Your task to perform on an android device: Add "razer blackwidow" to the cart on target.com Image 0: 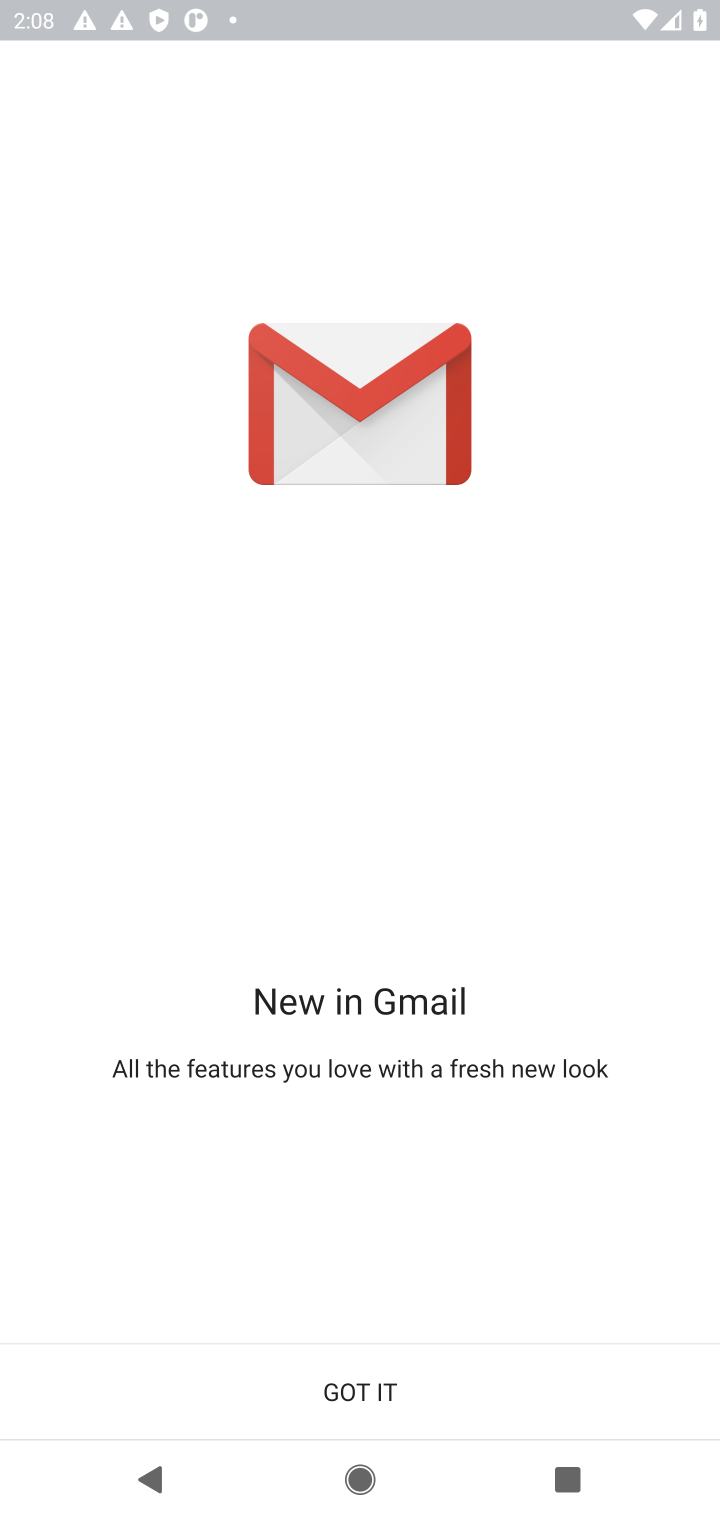
Step 0: press home button
Your task to perform on an android device: Add "razer blackwidow" to the cart on target.com Image 1: 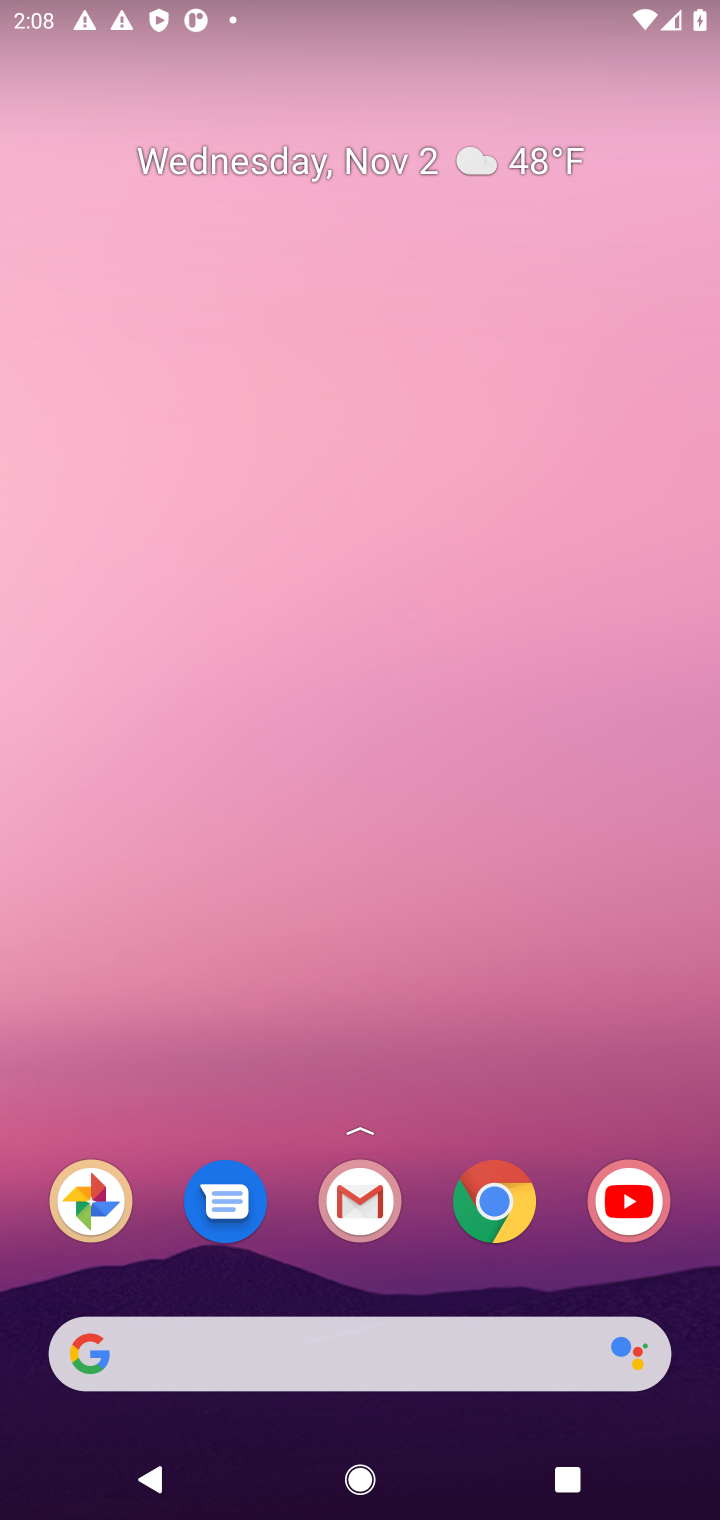
Step 1: click (485, 1197)
Your task to perform on an android device: Add "razer blackwidow" to the cart on target.com Image 2: 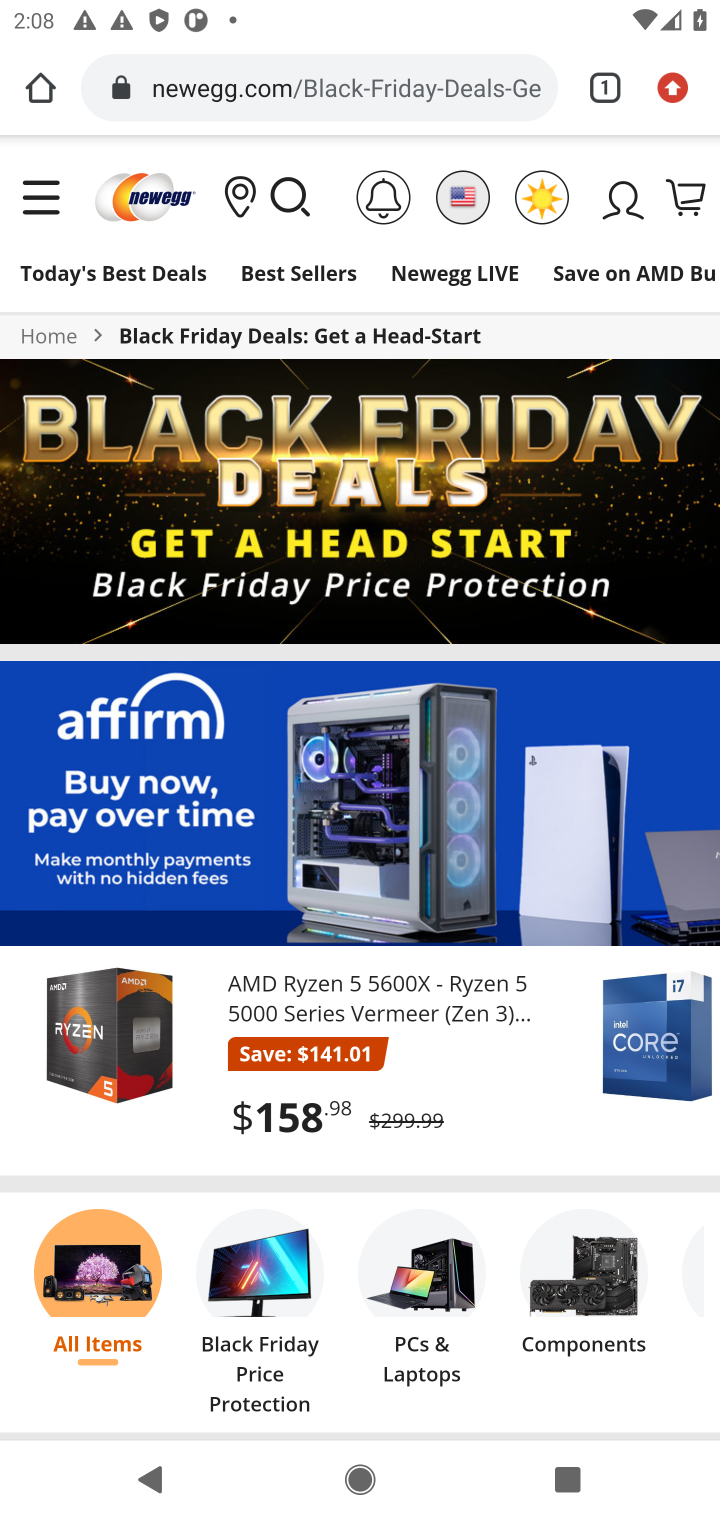
Step 2: click (478, 85)
Your task to perform on an android device: Add "razer blackwidow" to the cart on target.com Image 3: 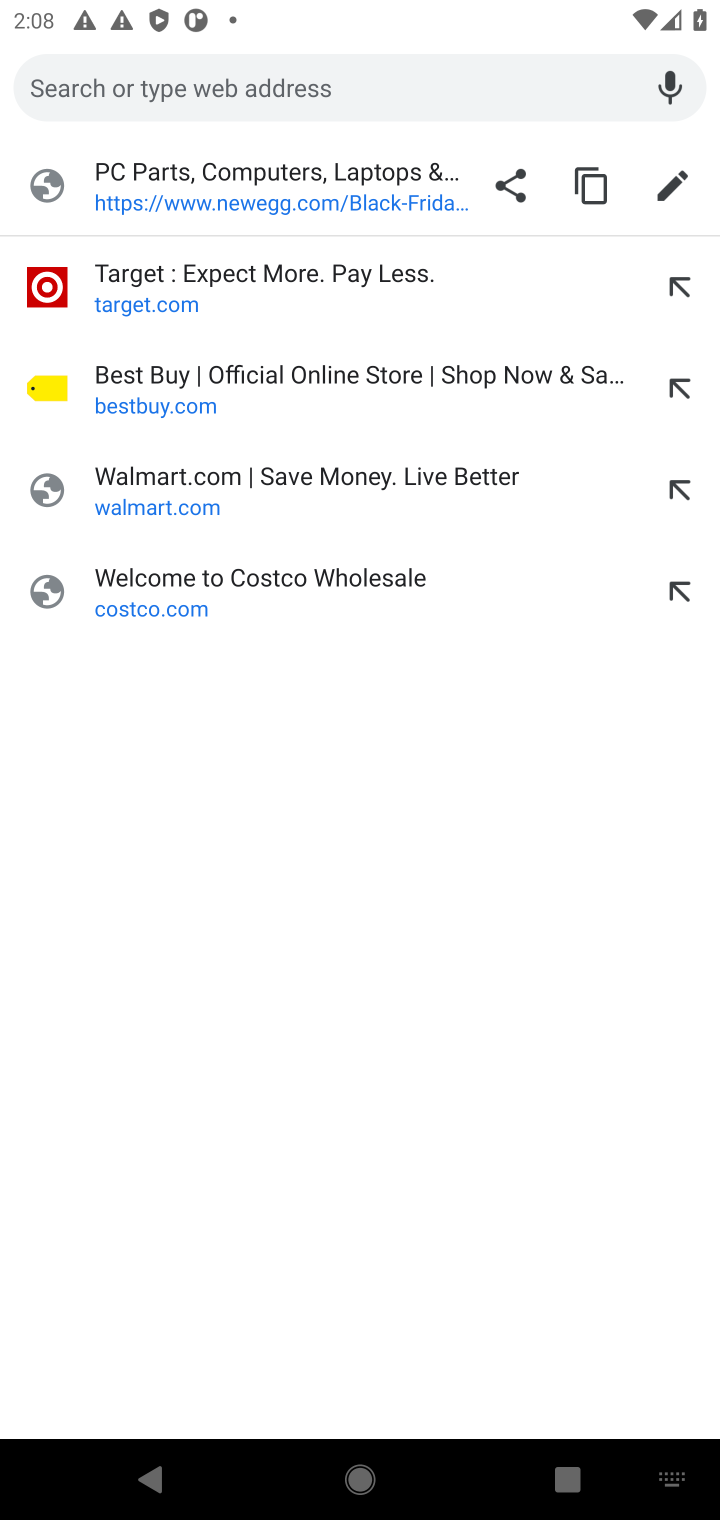
Step 3: click (380, 252)
Your task to perform on an android device: Add "razer blackwidow" to the cart on target.com Image 4: 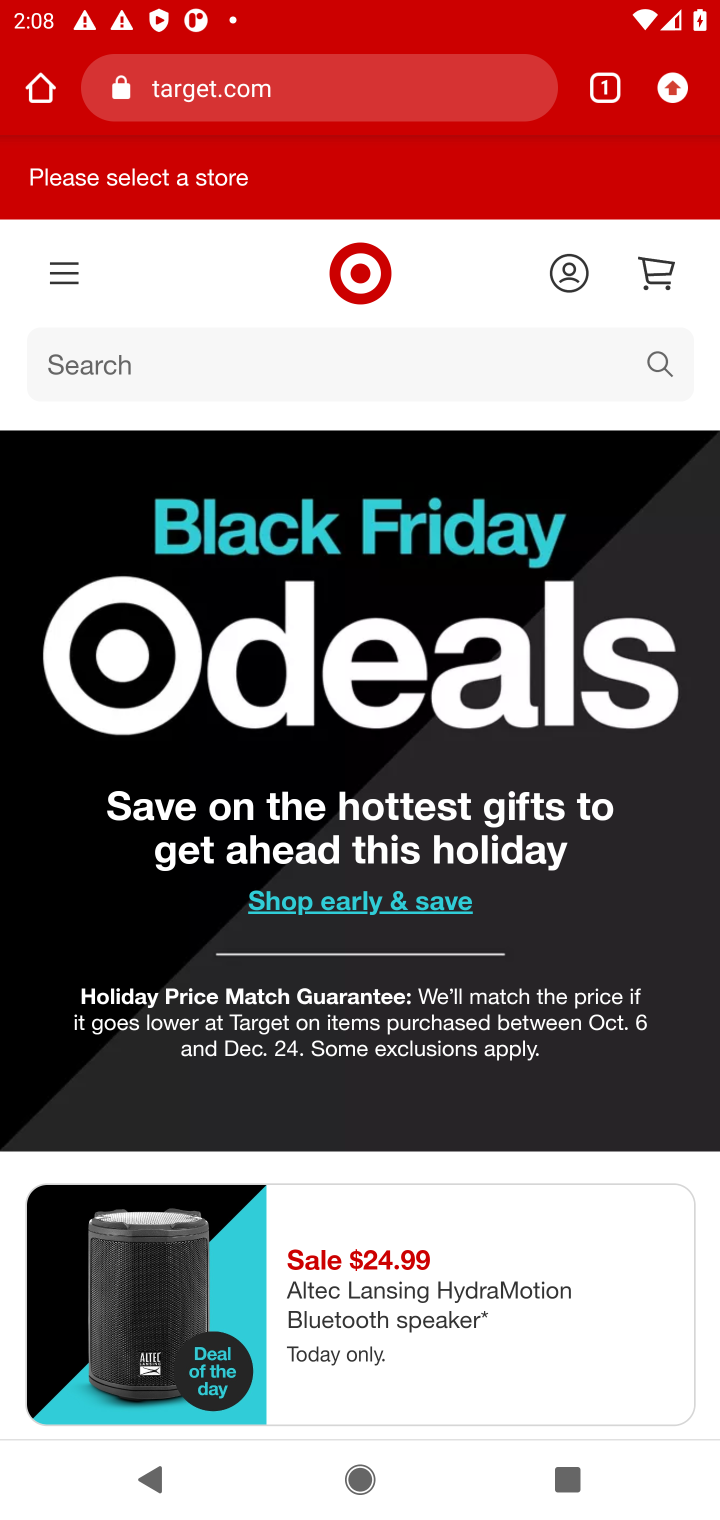
Step 4: click (647, 353)
Your task to perform on an android device: Add "razer blackwidow" to the cart on target.com Image 5: 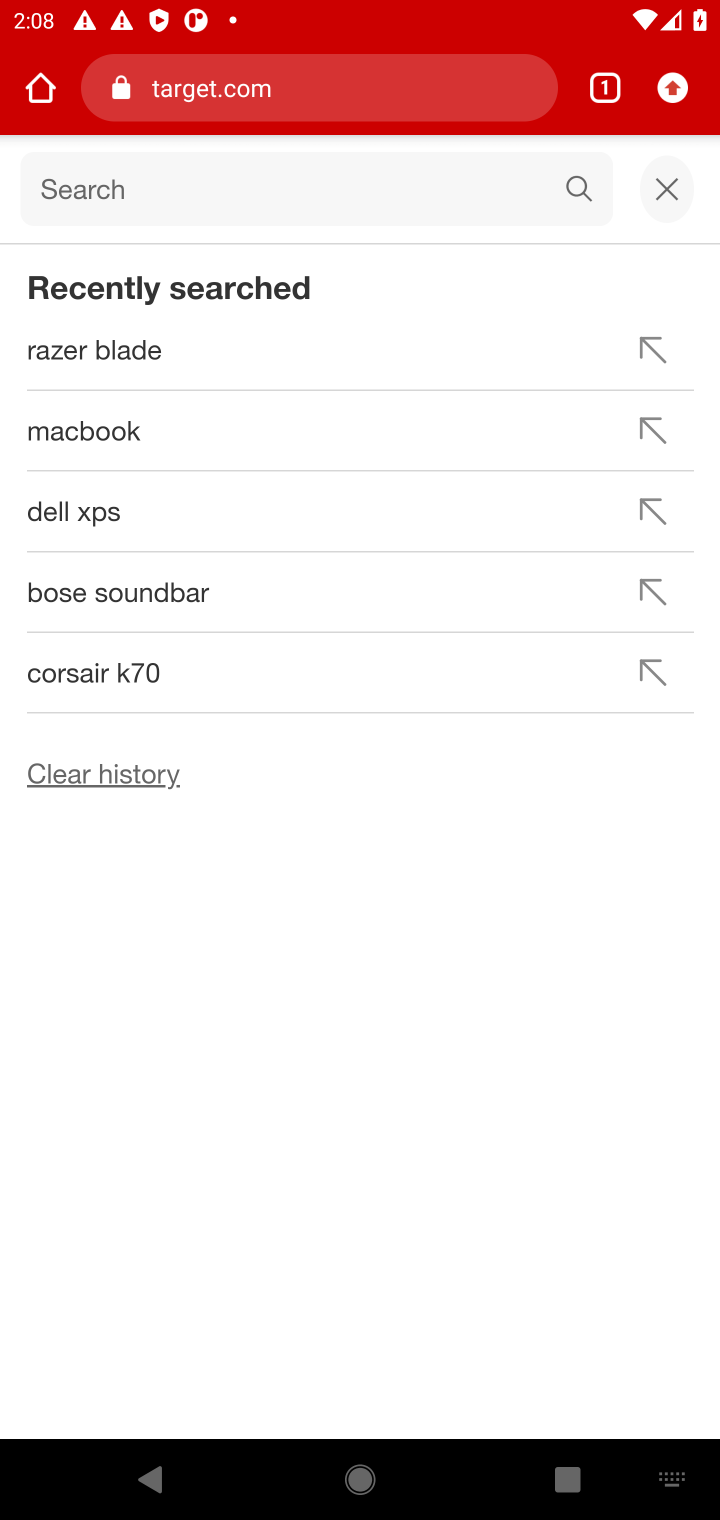
Step 5: type "razer blackwidow"
Your task to perform on an android device: Add "razer blackwidow" to the cart on target.com Image 6: 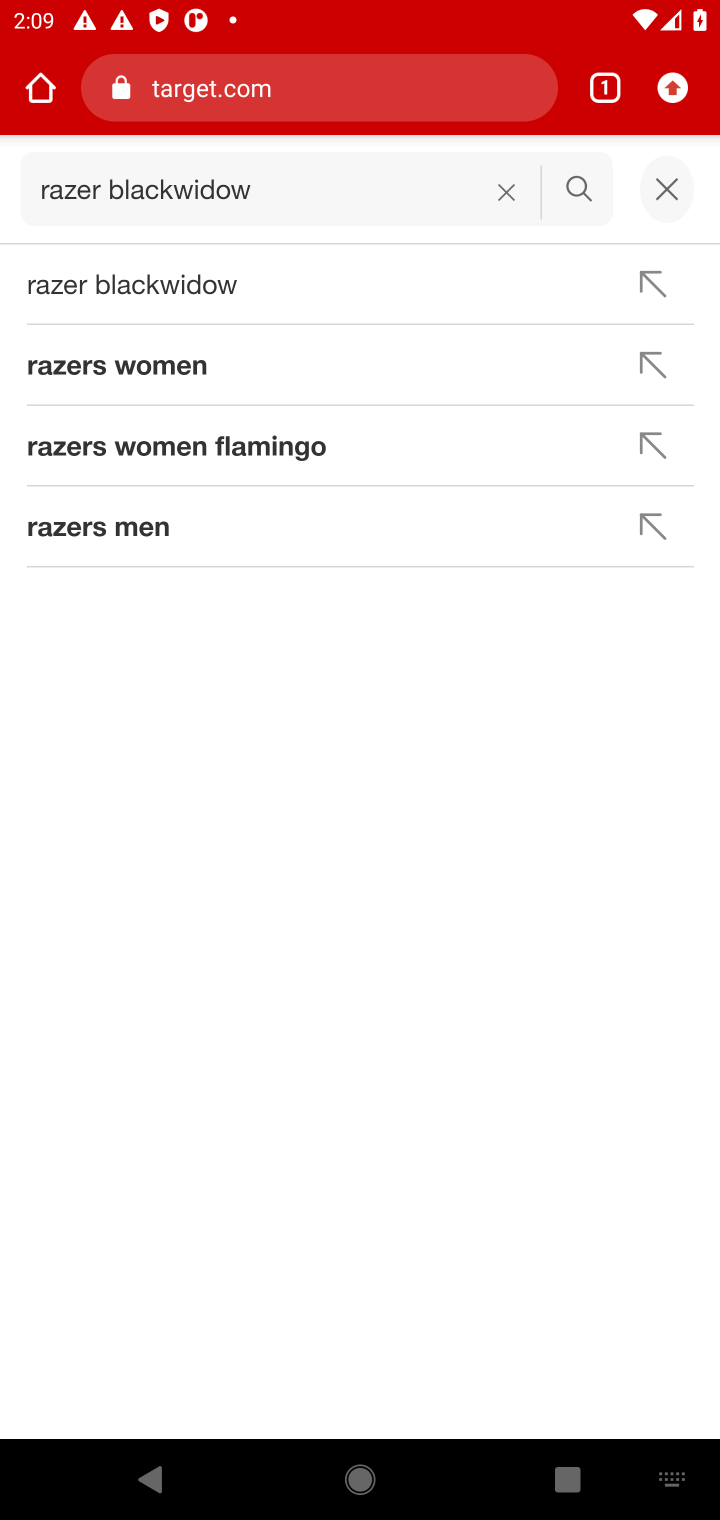
Step 6: click (169, 283)
Your task to perform on an android device: Add "razer blackwidow" to the cart on target.com Image 7: 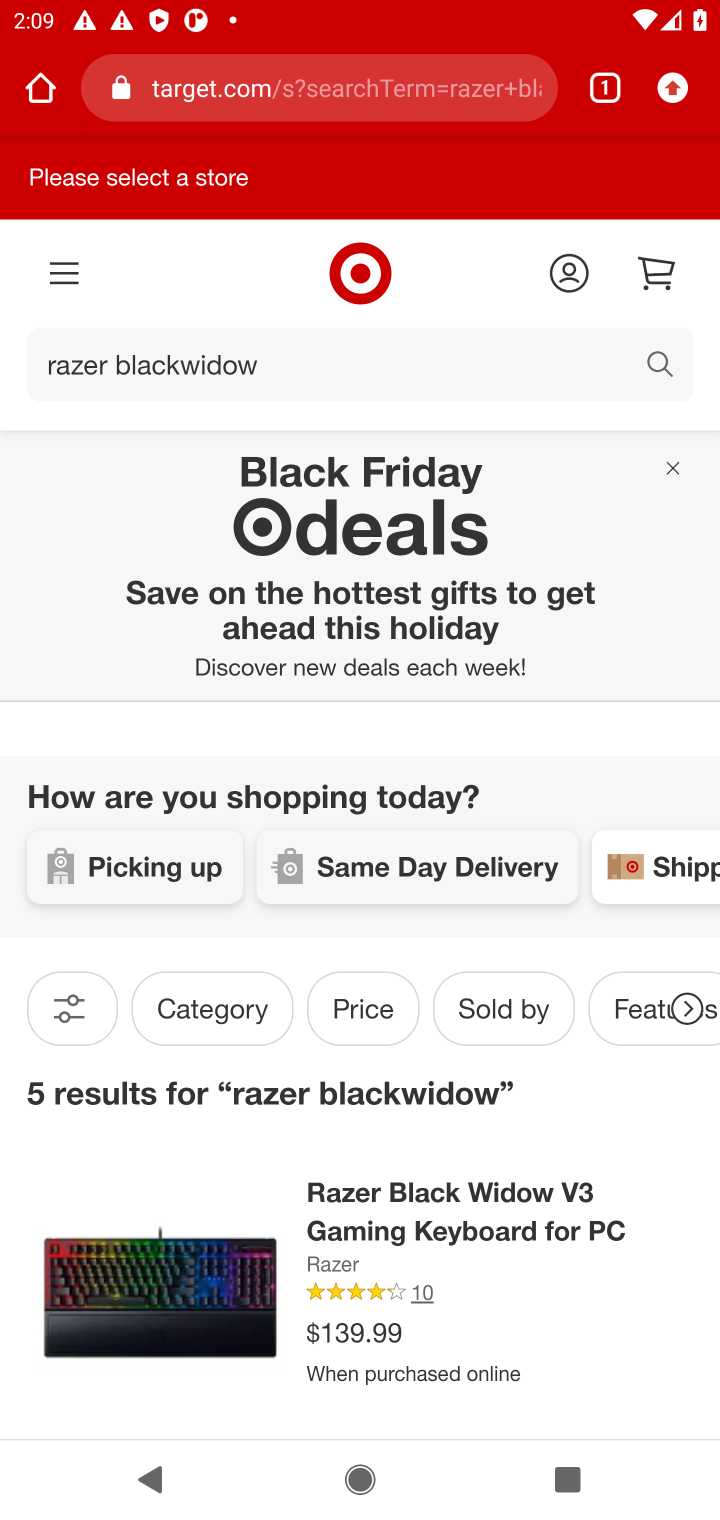
Step 7: drag from (542, 1155) to (549, 652)
Your task to perform on an android device: Add "razer blackwidow" to the cart on target.com Image 8: 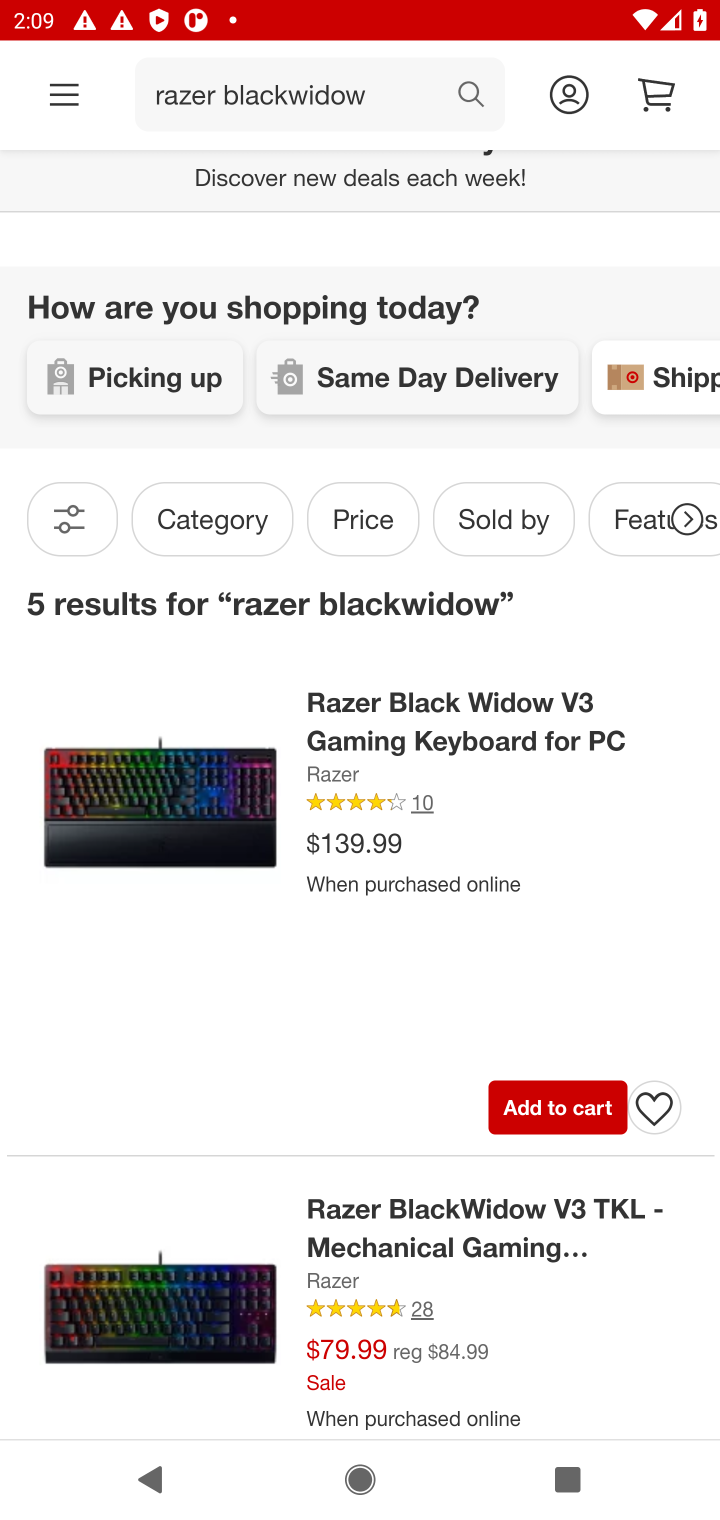
Step 8: click (506, 1194)
Your task to perform on an android device: Add "razer blackwidow" to the cart on target.com Image 9: 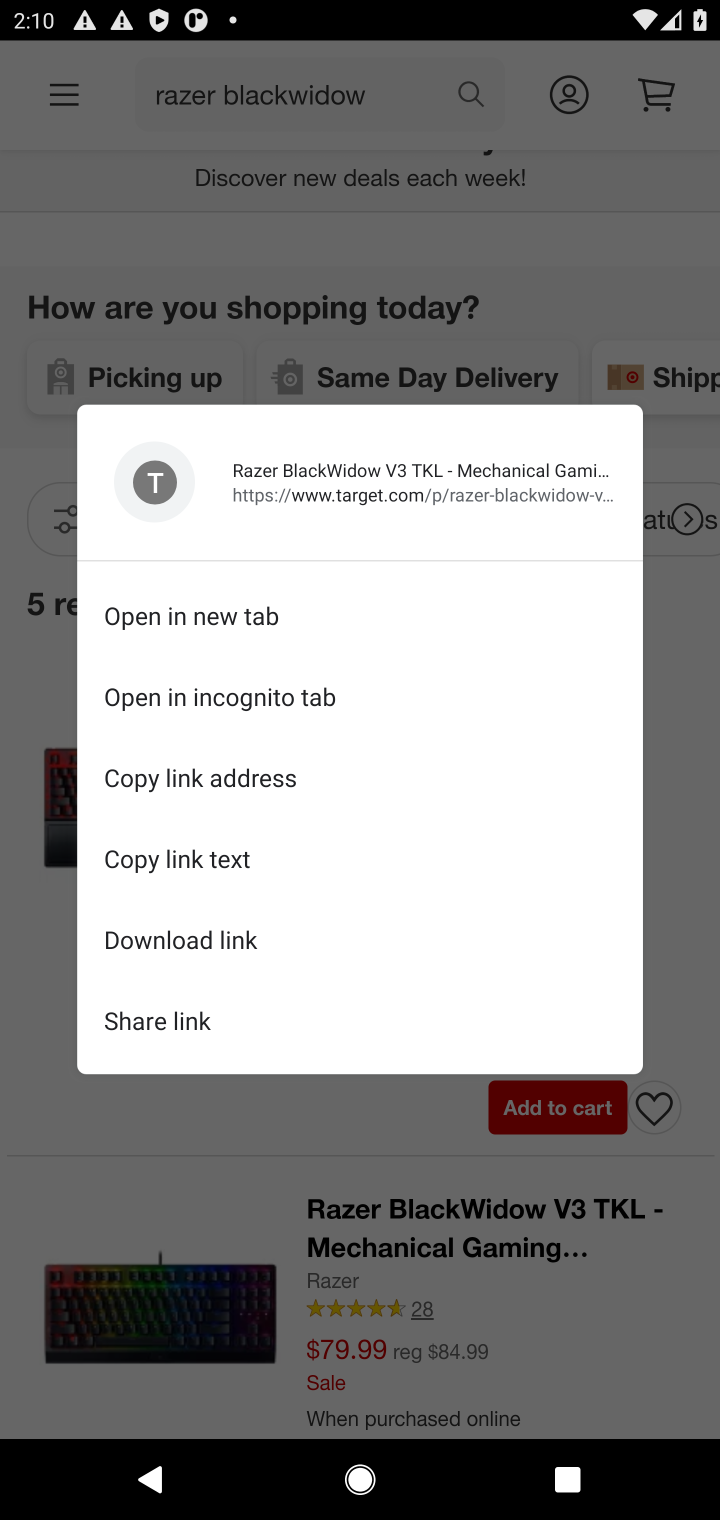
Step 9: click (448, 1140)
Your task to perform on an android device: Add "razer blackwidow" to the cart on target.com Image 10: 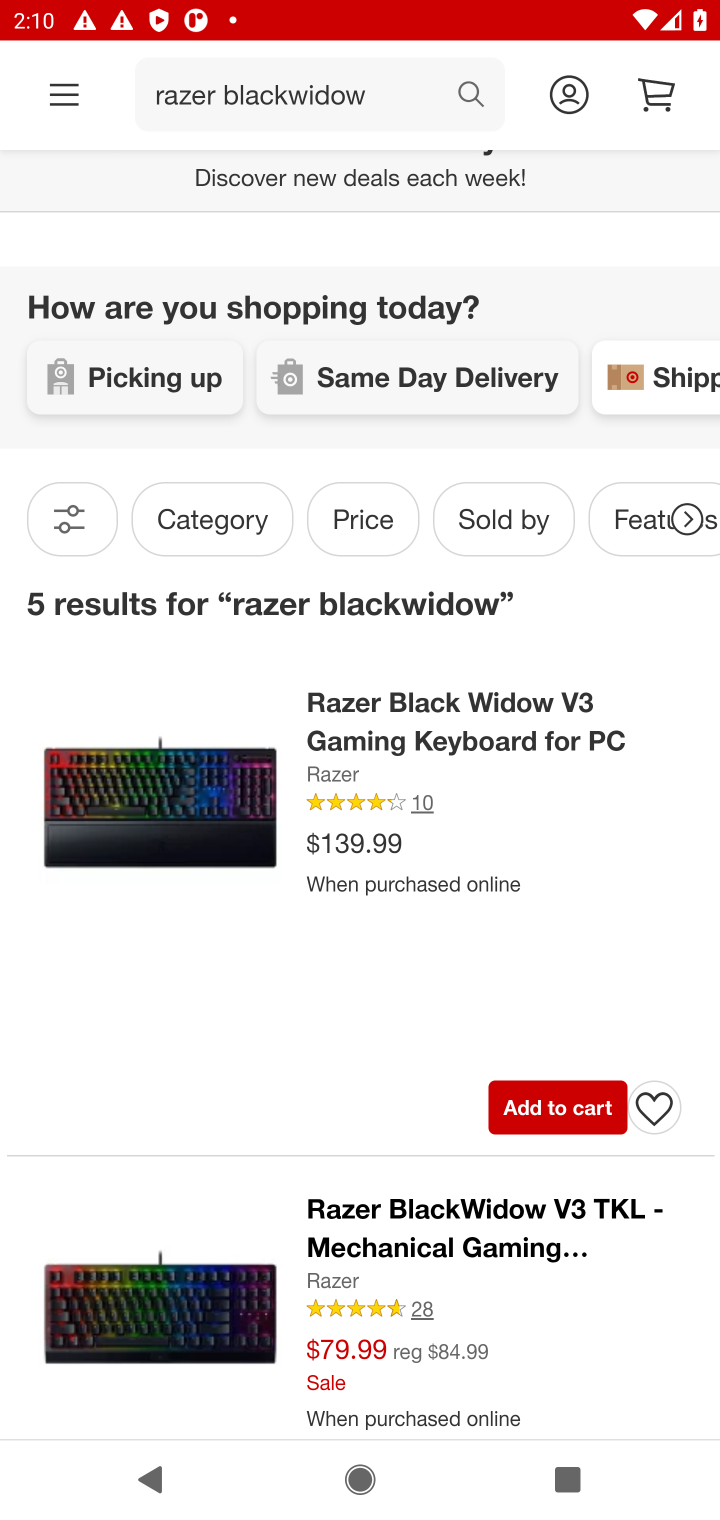
Step 10: click (433, 697)
Your task to perform on an android device: Add "razer blackwidow" to the cart on target.com Image 11: 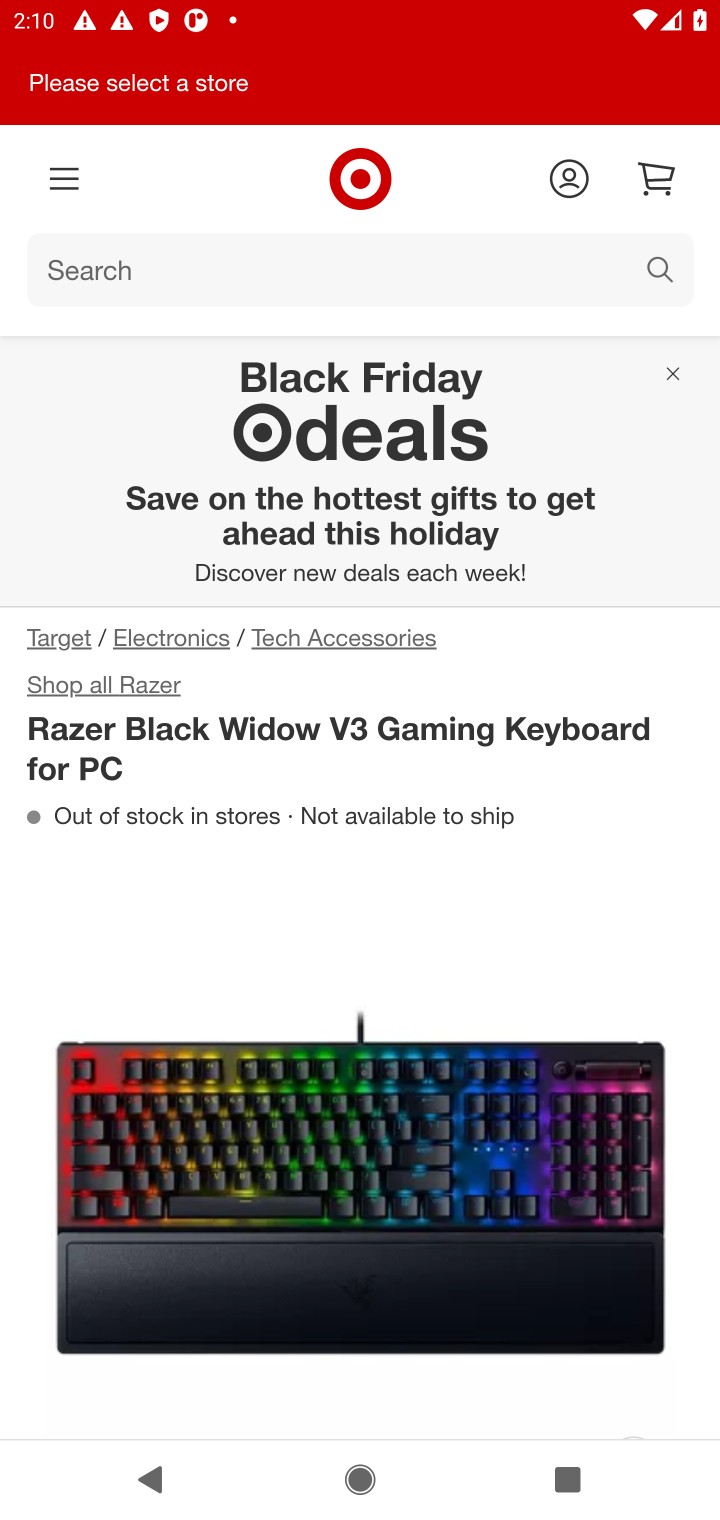
Step 11: drag from (541, 801) to (537, 386)
Your task to perform on an android device: Add "razer blackwidow" to the cart on target.com Image 12: 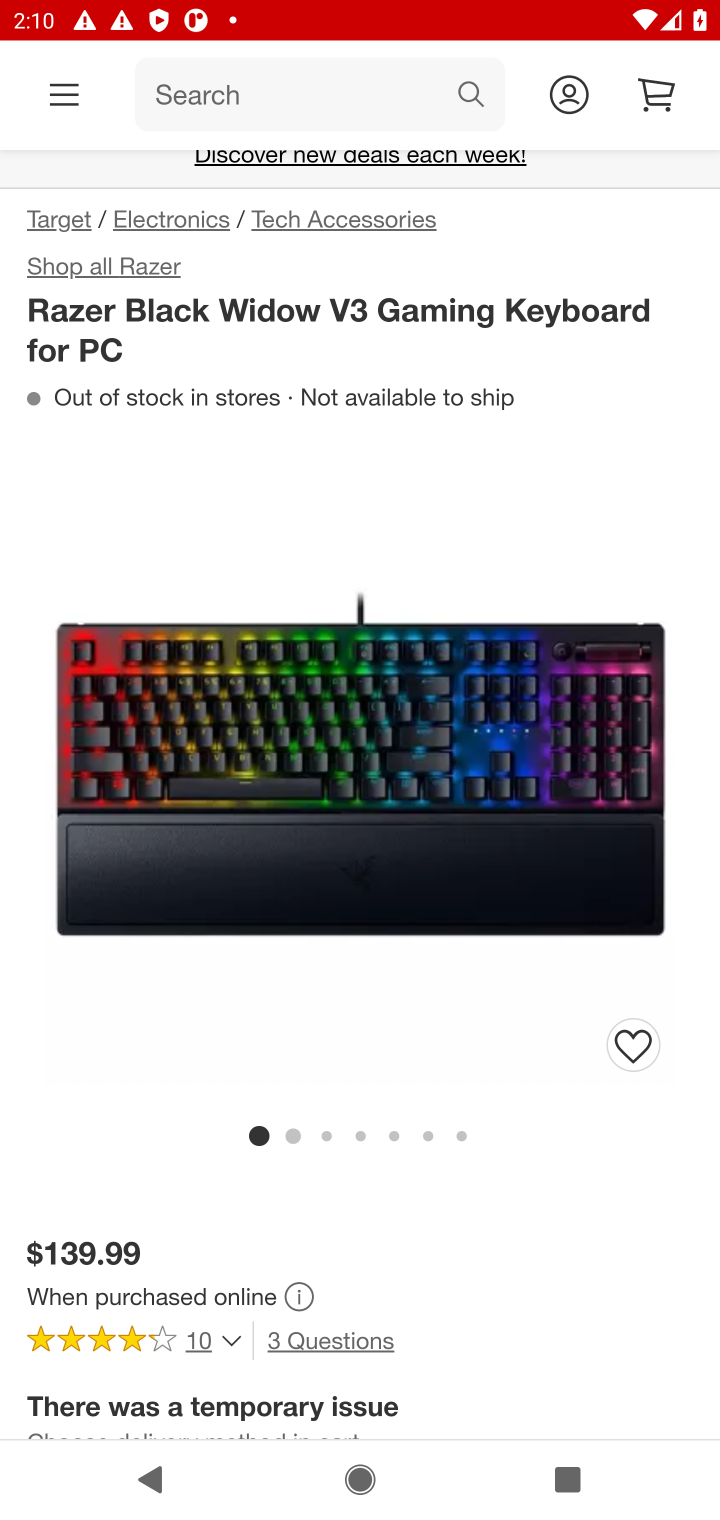
Step 12: drag from (591, 1188) to (542, 649)
Your task to perform on an android device: Add "razer blackwidow" to the cart on target.com Image 13: 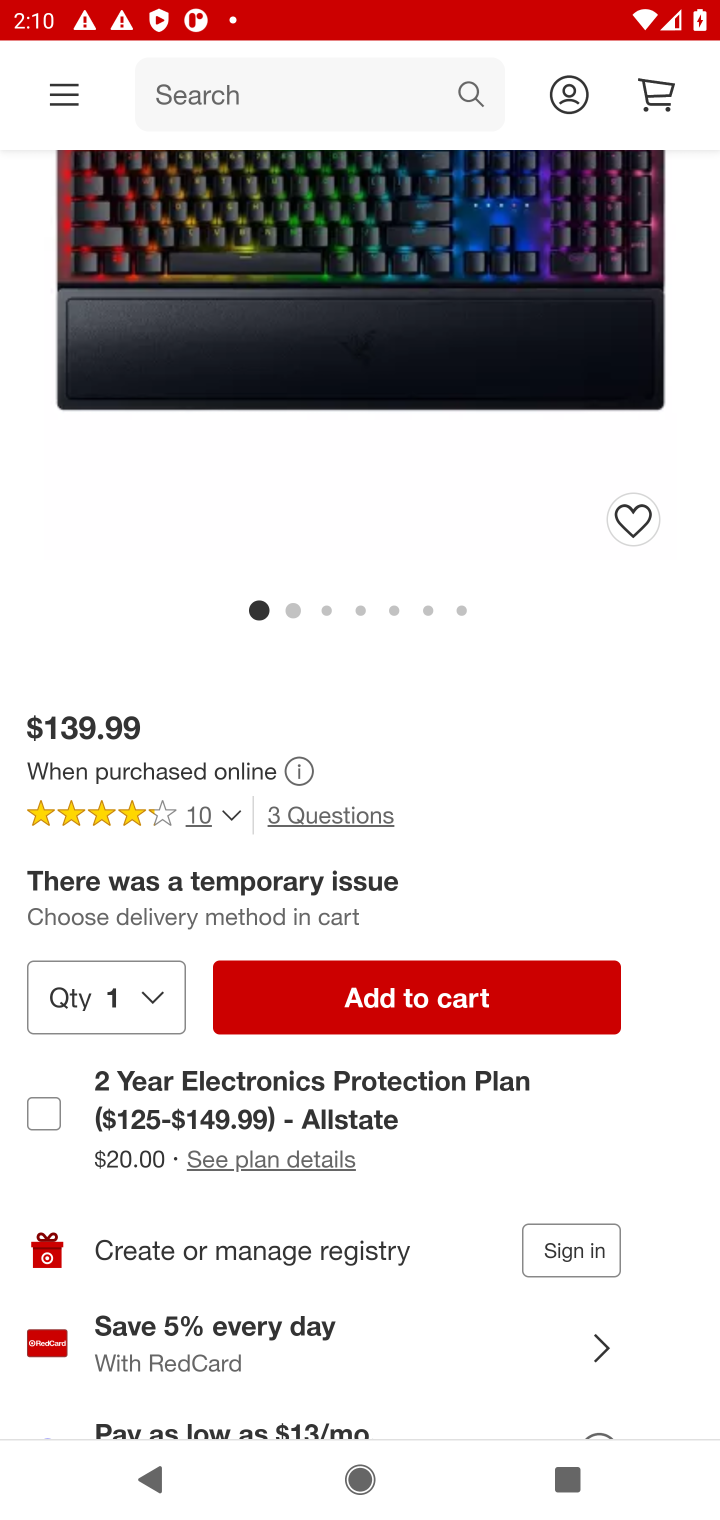
Step 13: click (409, 984)
Your task to perform on an android device: Add "razer blackwidow" to the cart on target.com Image 14: 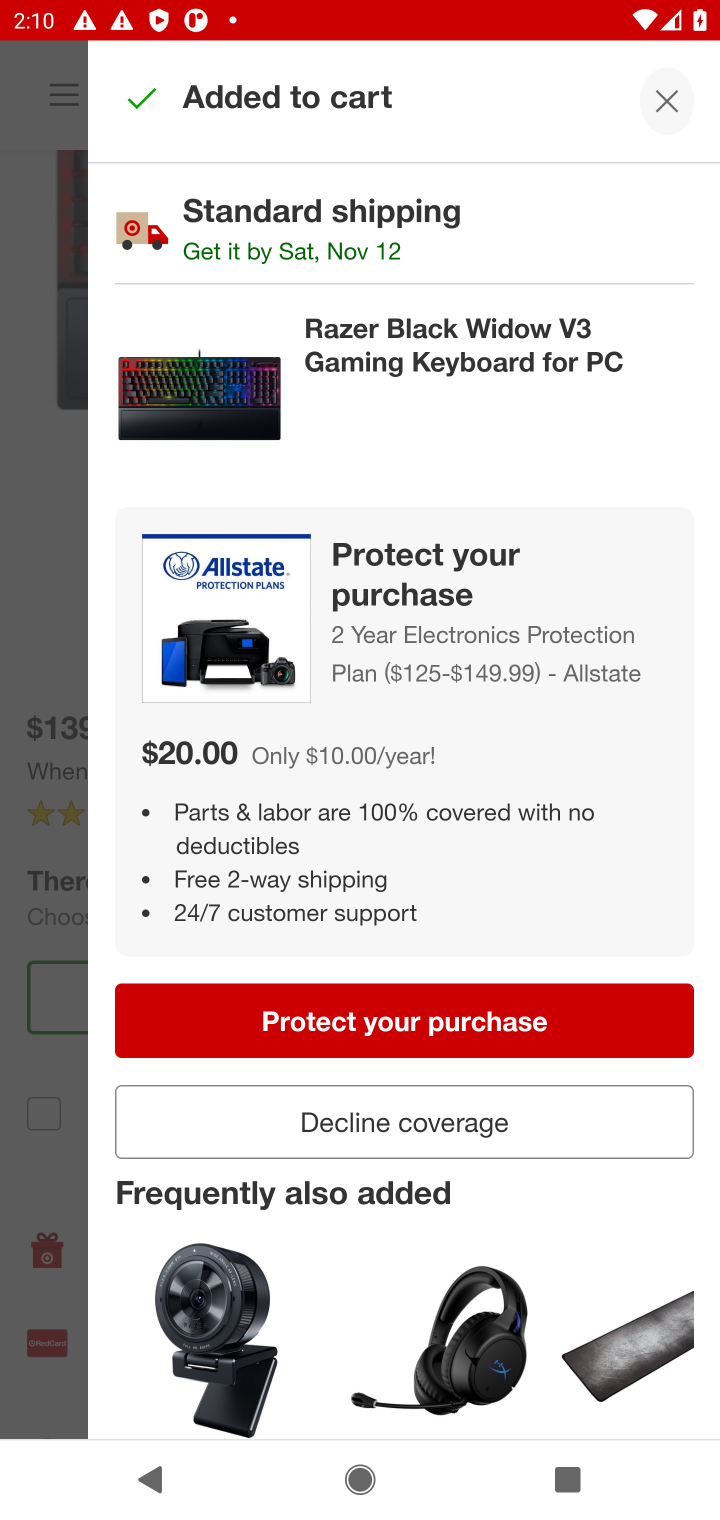
Step 14: task complete